Your task to perform on an android device: Open Google Chrome and open the bookmarks view Image 0: 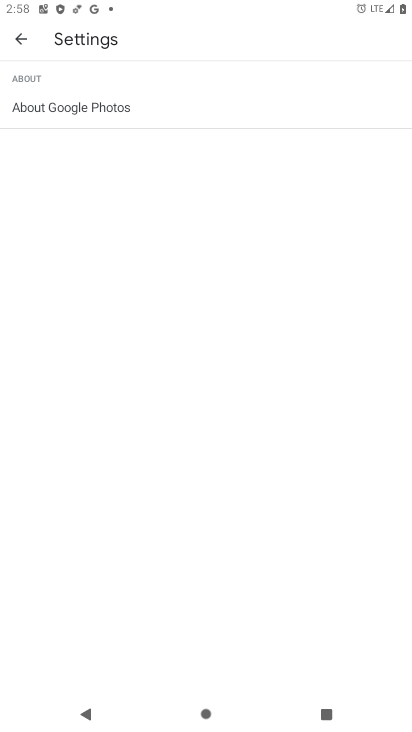
Step 0: press home button
Your task to perform on an android device: Open Google Chrome and open the bookmarks view Image 1: 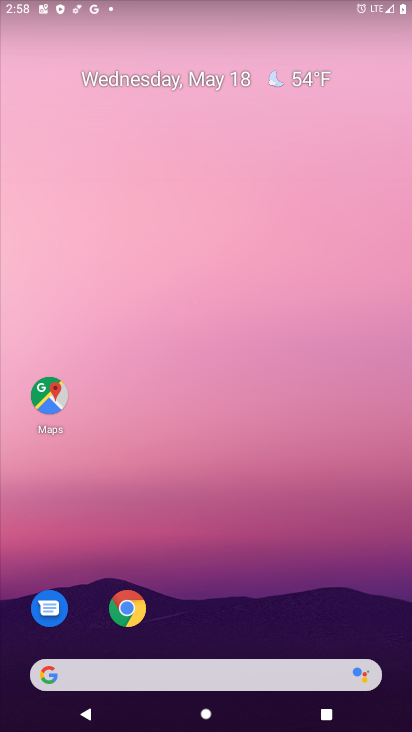
Step 1: click (124, 615)
Your task to perform on an android device: Open Google Chrome and open the bookmarks view Image 2: 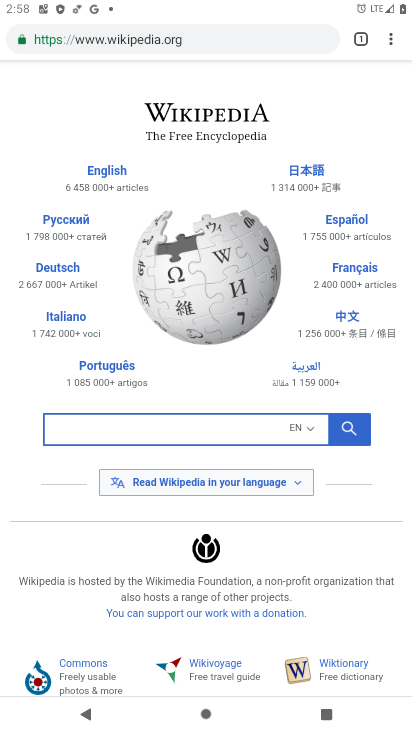
Step 2: click (390, 42)
Your task to perform on an android device: Open Google Chrome and open the bookmarks view Image 3: 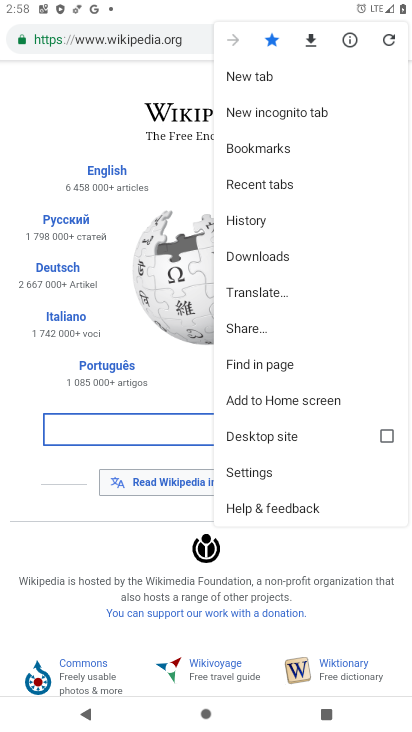
Step 3: click (266, 146)
Your task to perform on an android device: Open Google Chrome and open the bookmarks view Image 4: 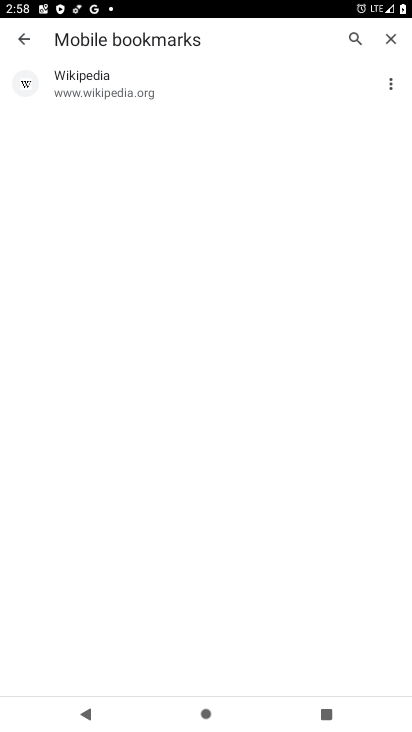
Step 4: task complete